Your task to perform on an android device: View the shopping cart on ebay. Search for "acer predator" on ebay, select the first entry, add it to the cart, then select checkout. Image 0: 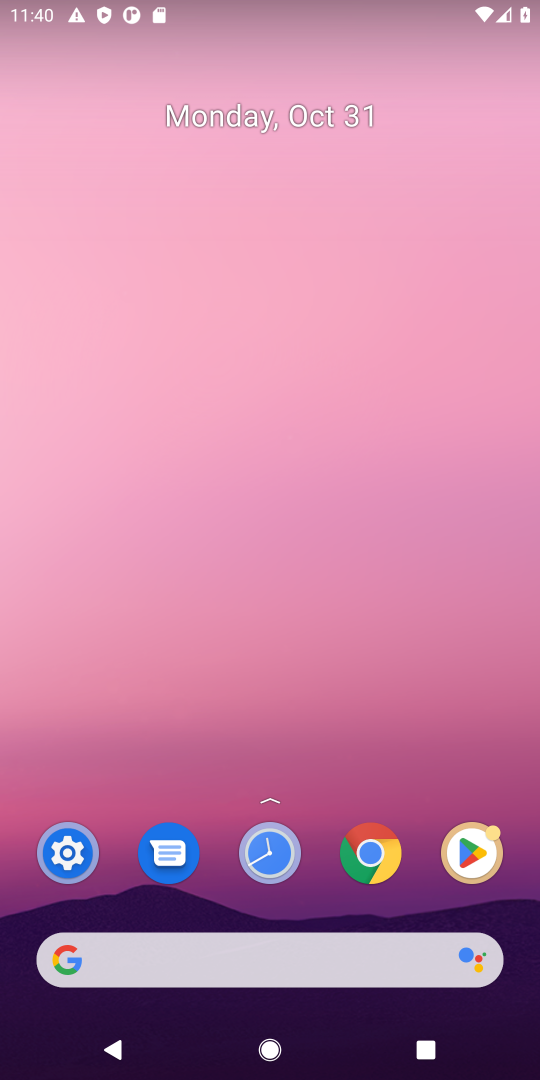
Step 0: click (130, 988)
Your task to perform on an android device: View the shopping cart on ebay. Search for "acer predator" on ebay, select the first entry, add it to the cart, then select checkout. Image 1: 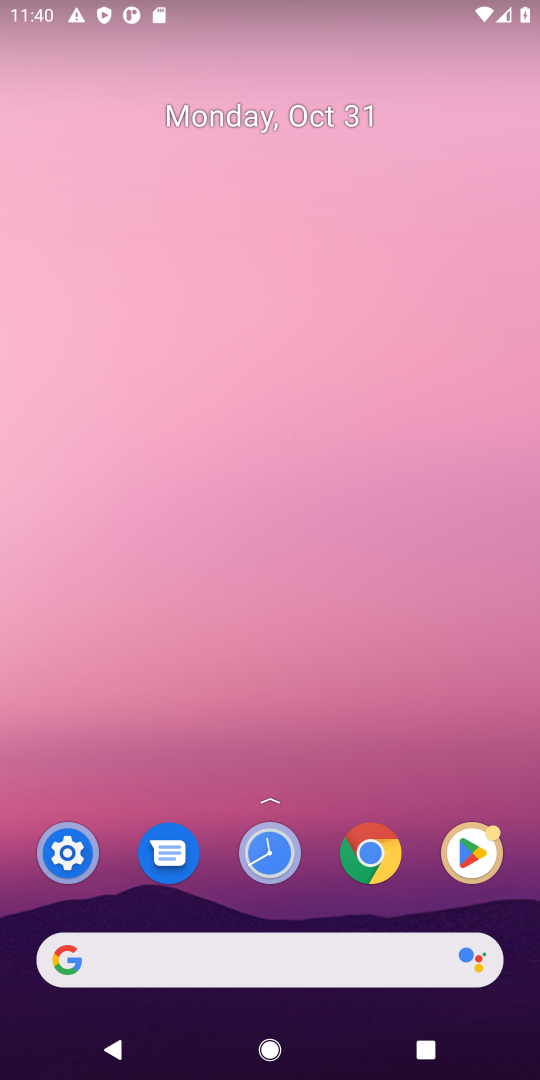
Step 1: click (153, 968)
Your task to perform on an android device: View the shopping cart on ebay. Search for "acer predator" on ebay, select the first entry, add it to the cart, then select checkout. Image 2: 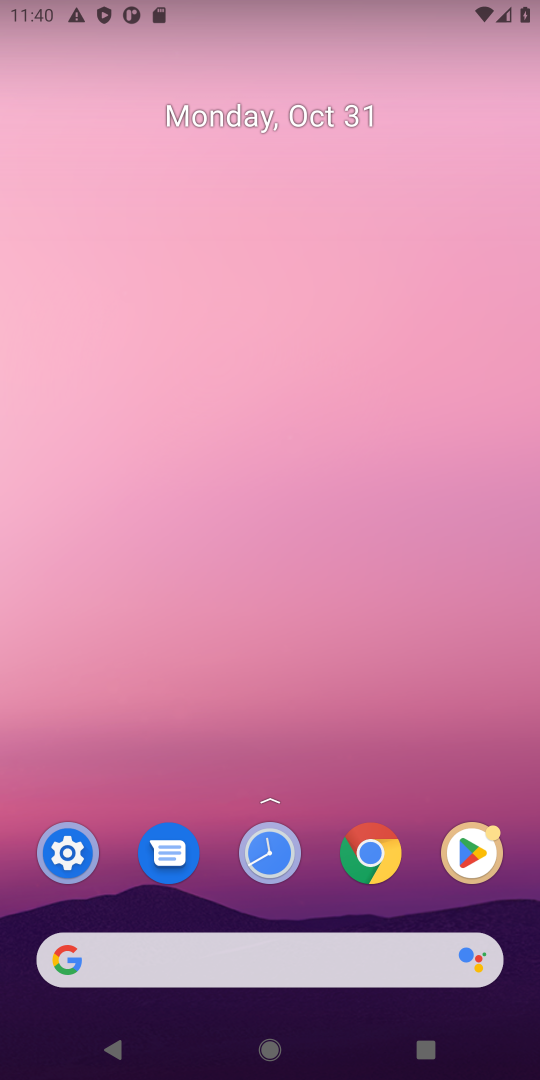
Step 2: click (202, 977)
Your task to perform on an android device: View the shopping cart on ebay. Search for "acer predator" on ebay, select the first entry, add it to the cart, then select checkout. Image 3: 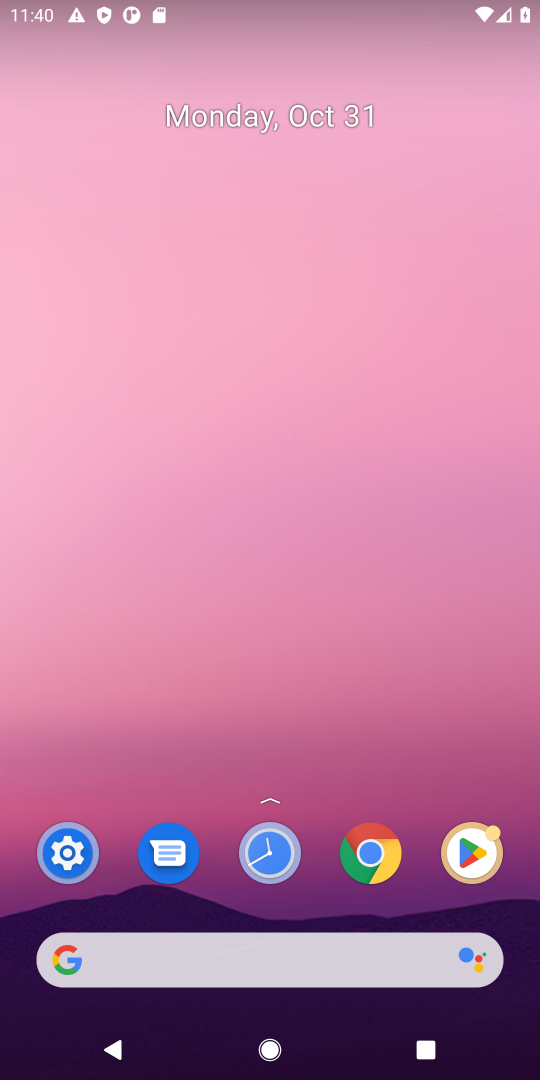
Step 3: click (300, 970)
Your task to perform on an android device: View the shopping cart on ebay. Search for "acer predator" on ebay, select the first entry, add it to the cart, then select checkout. Image 4: 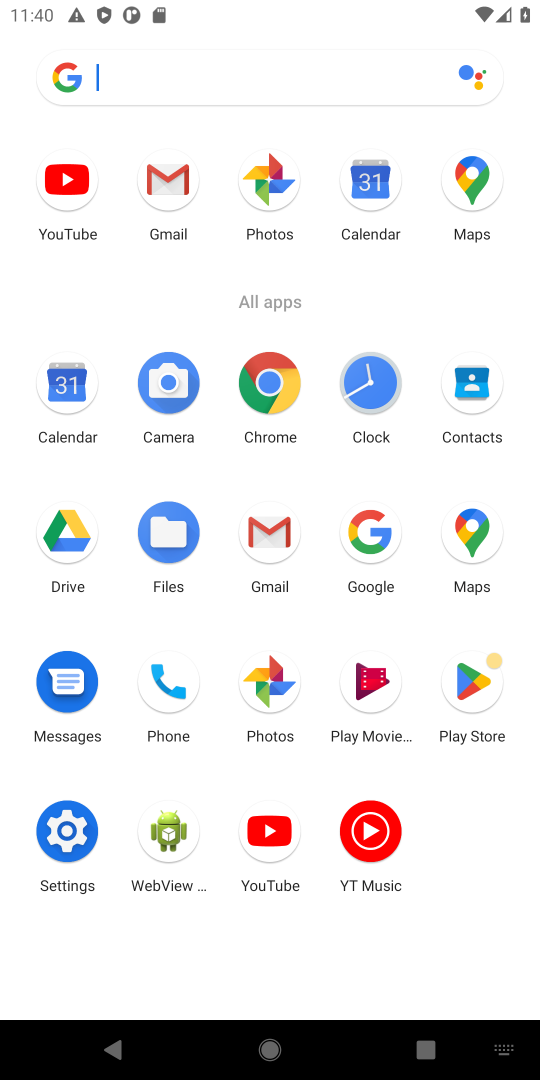
Step 4: press home button
Your task to perform on an android device: View the shopping cart on ebay. Search for "acer predator" on ebay, select the first entry, add it to the cart, then select checkout. Image 5: 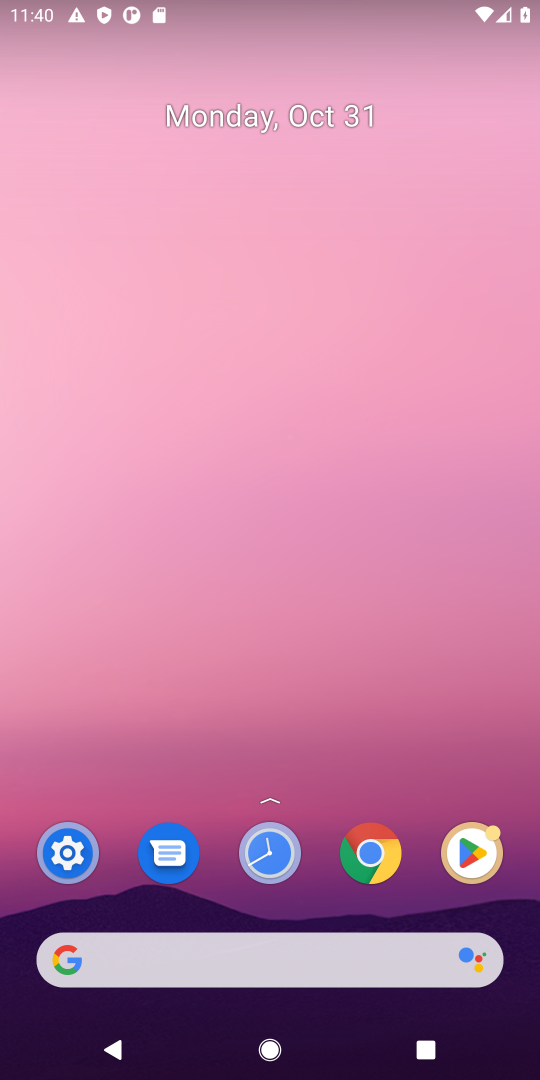
Step 5: click (336, 946)
Your task to perform on an android device: View the shopping cart on ebay. Search for "acer predator" on ebay, select the first entry, add it to the cart, then select checkout. Image 6: 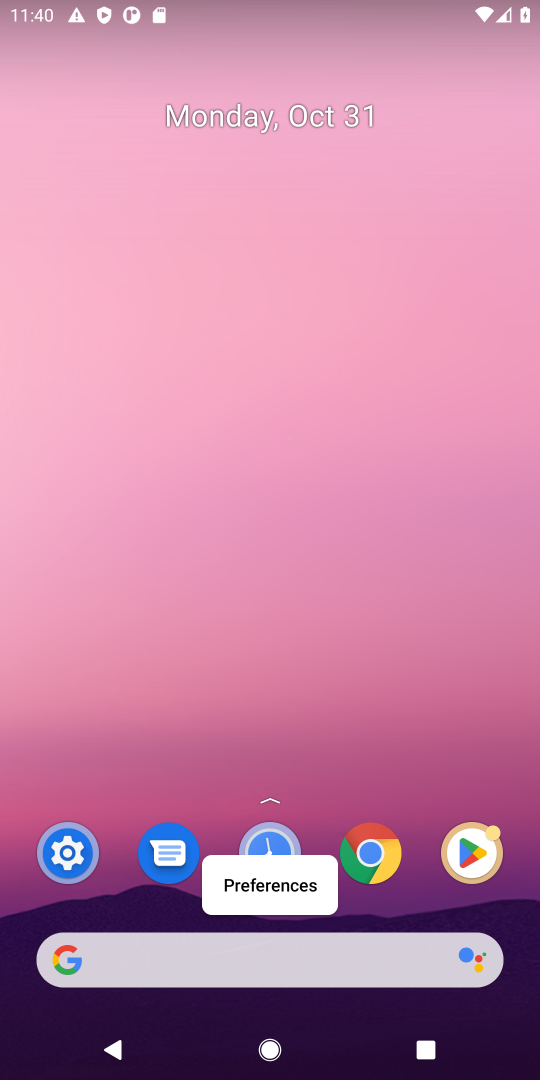
Step 6: click (334, 947)
Your task to perform on an android device: View the shopping cart on ebay. Search for "acer predator" on ebay, select the first entry, add it to the cart, then select checkout. Image 7: 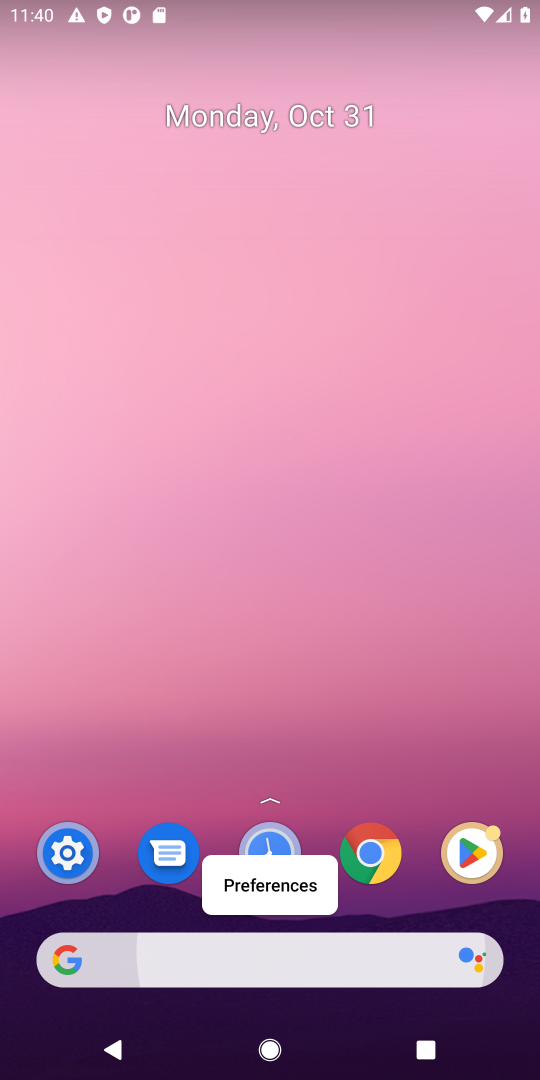
Step 7: click (175, 954)
Your task to perform on an android device: View the shopping cart on ebay. Search for "acer predator" on ebay, select the first entry, add it to the cart, then select checkout. Image 8: 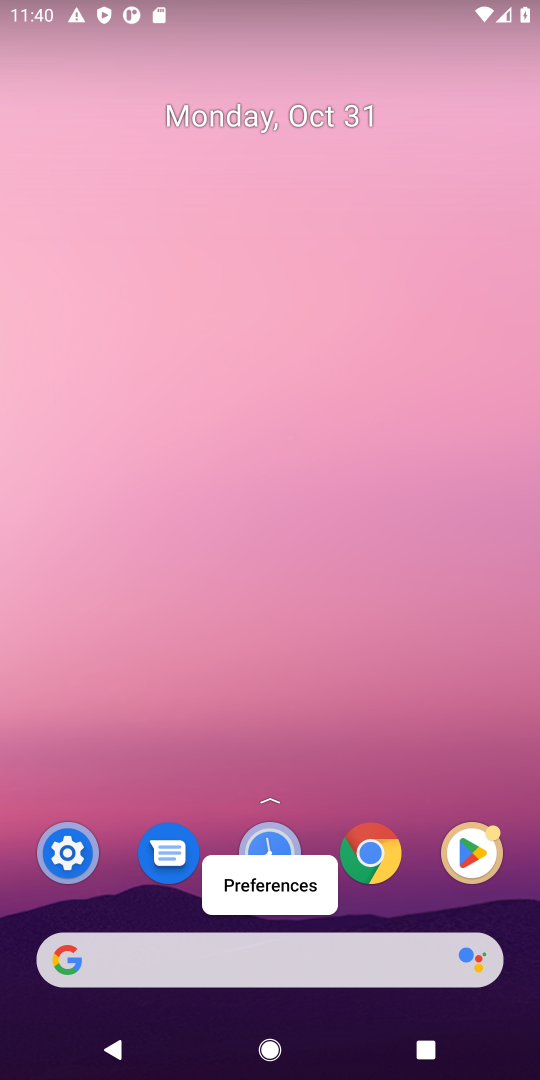
Step 8: click (175, 954)
Your task to perform on an android device: View the shopping cart on ebay. Search for "acer predator" on ebay, select the first entry, add it to the cart, then select checkout. Image 9: 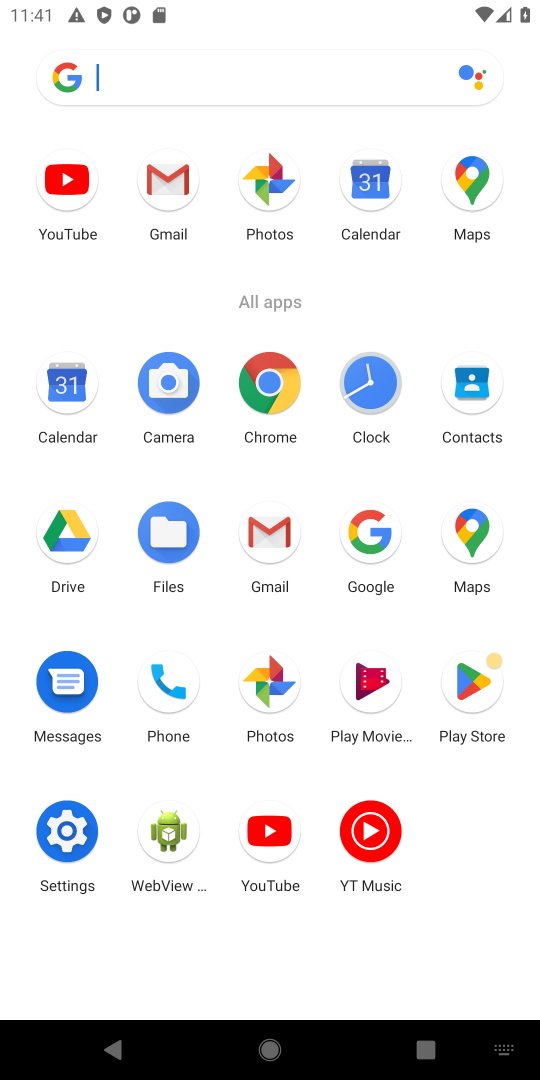
Step 9: type "ebay"
Your task to perform on an android device: View the shopping cart on ebay. Search for "acer predator" on ebay, select the first entry, add it to the cart, then select checkout. Image 10: 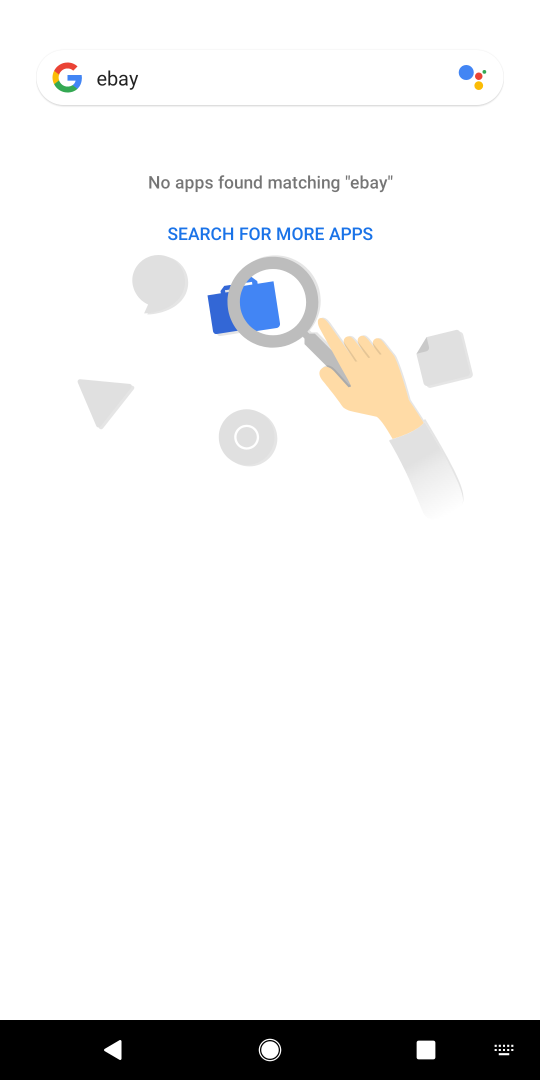
Step 10: type ""
Your task to perform on an android device: View the shopping cart on ebay. Search for "acer predator" on ebay, select the first entry, add it to the cart, then select checkout. Image 11: 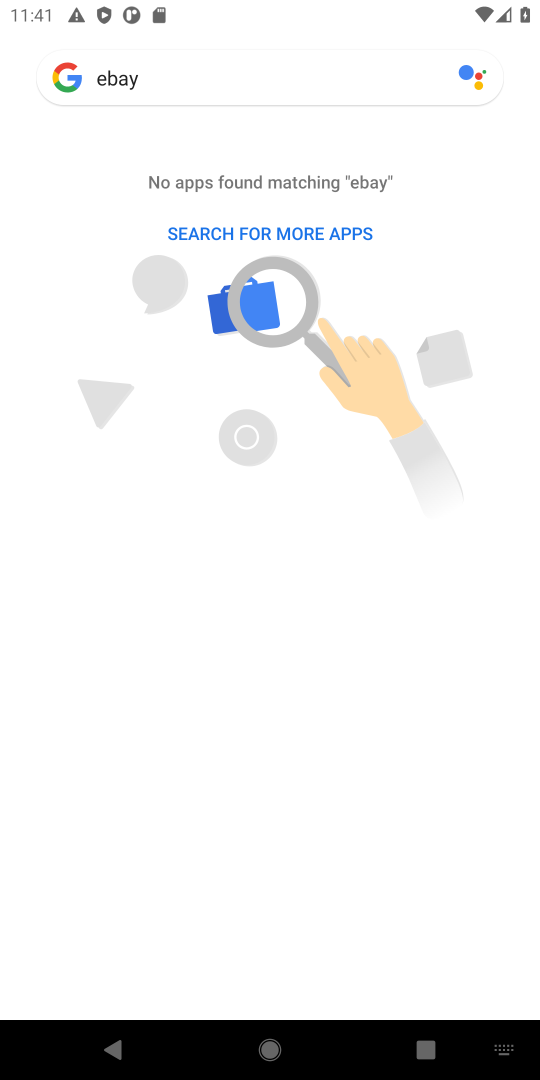
Step 11: type ""
Your task to perform on an android device: View the shopping cart on ebay. Search for "acer predator" on ebay, select the first entry, add it to the cart, then select checkout. Image 12: 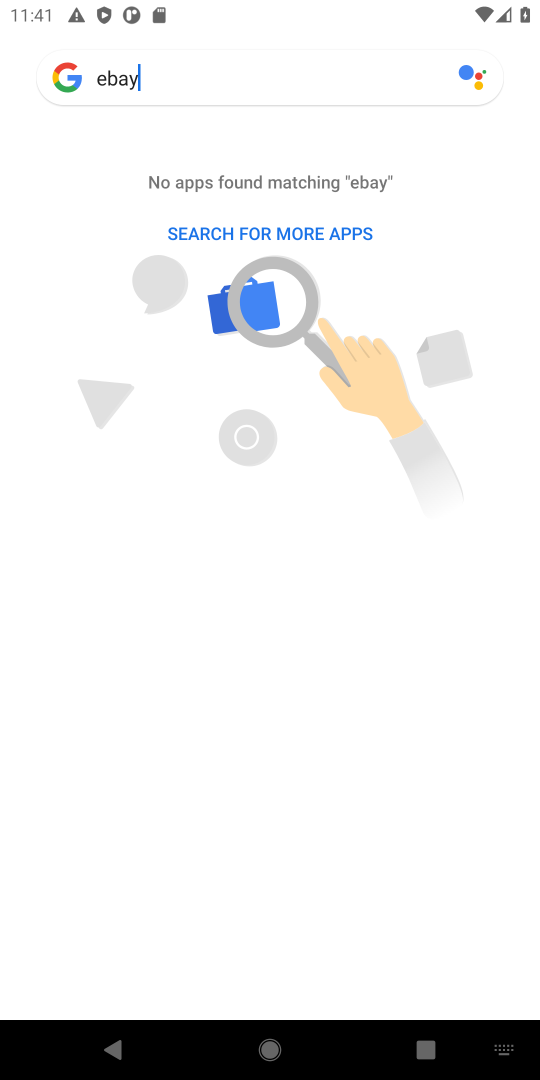
Step 12: press enter
Your task to perform on an android device: View the shopping cart on ebay. Search for "acer predator" on ebay, select the first entry, add it to the cart, then select checkout. Image 13: 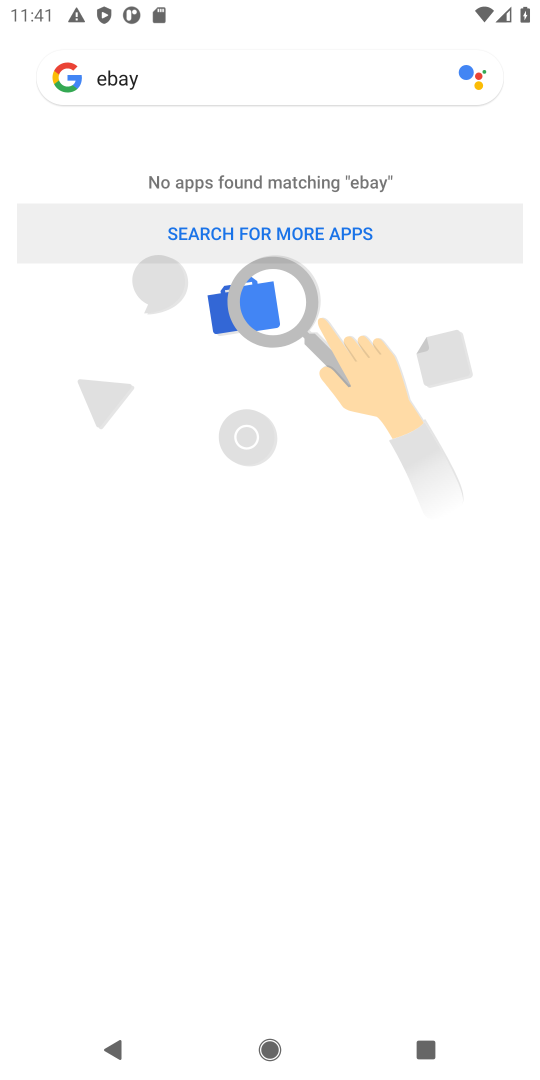
Step 13: press enter
Your task to perform on an android device: View the shopping cart on ebay. Search for "acer predator" on ebay, select the first entry, add it to the cart, then select checkout. Image 14: 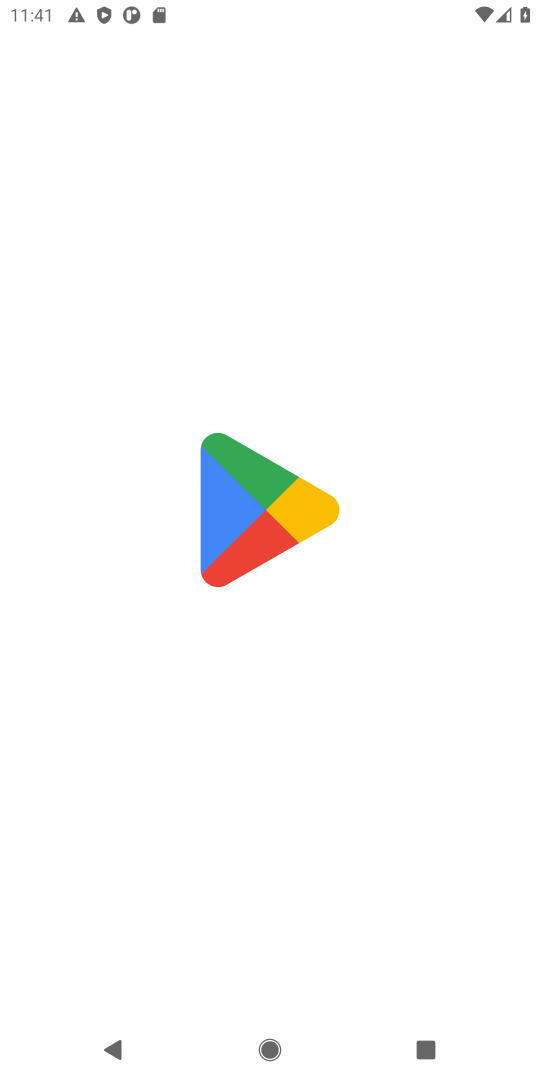
Step 14: press enter
Your task to perform on an android device: View the shopping cart on ebay. Search for "acer predator" on ebay, select the first entry, add it to the cart, then select checkout. Image 15: 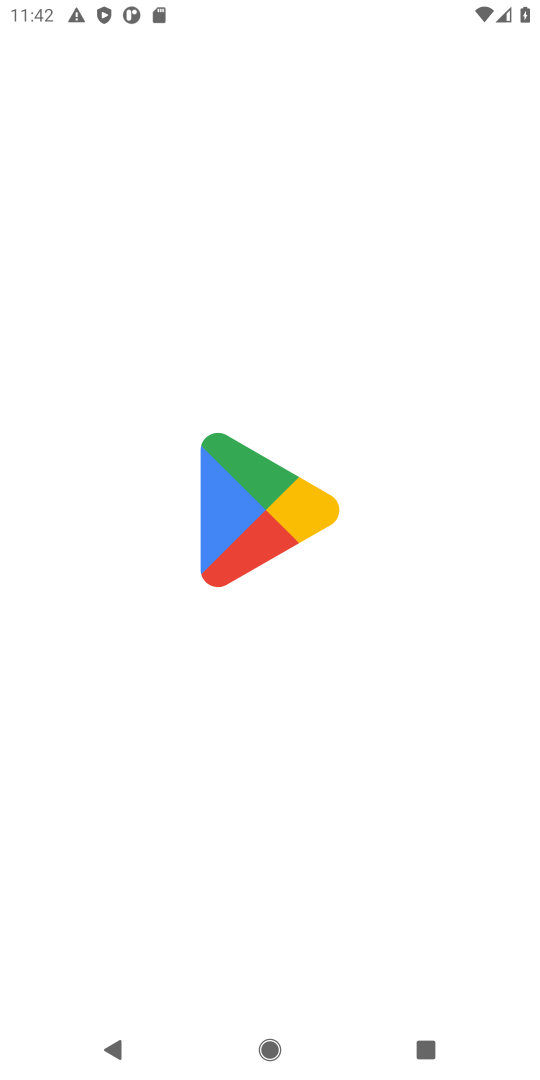
Step 15: type ""
Your task to perform on an android device: View the shopping cart on ebay. Search for "acer predator" on ebay, select the first entry, add it to the cart, then select checkout. Image 16: 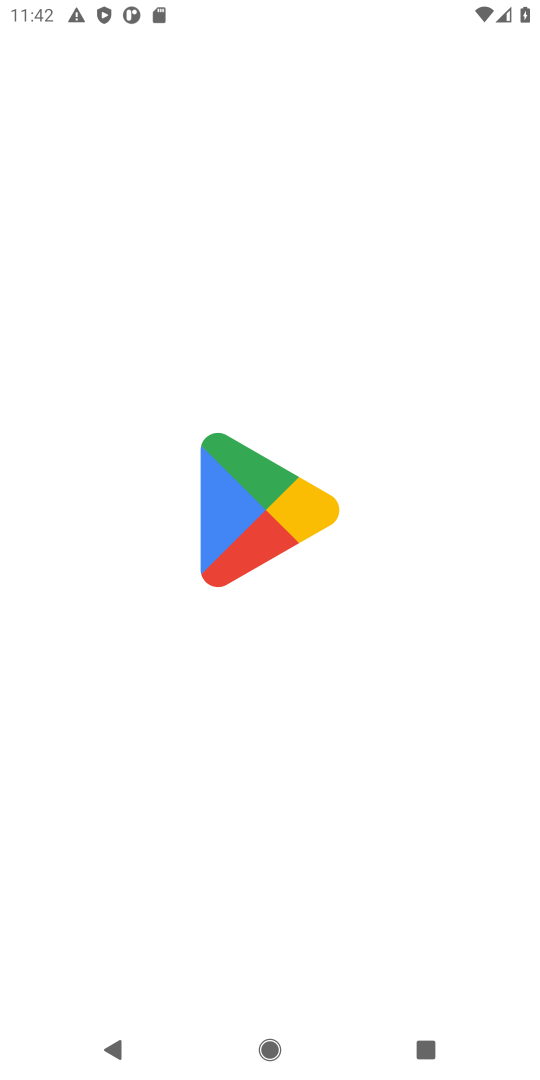
Step 16: type ""
Your task to perform on an android device: View the shopping cart on ebay. Search for "acer predator" on ebay, select the first entry, add it to the cart, then select checkout. Image 17: 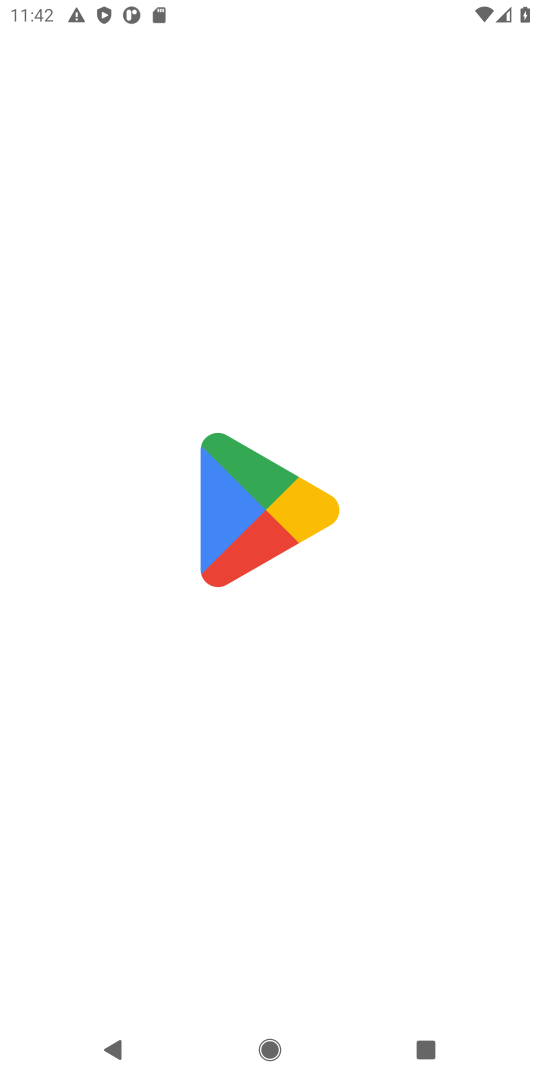
Step 17: type ""
Your task to perform on an android device: View the shopping cart on ebay. Search for "acer predator" on ebay, select the first entry, add it to the cart, then select checkout. Image 18: 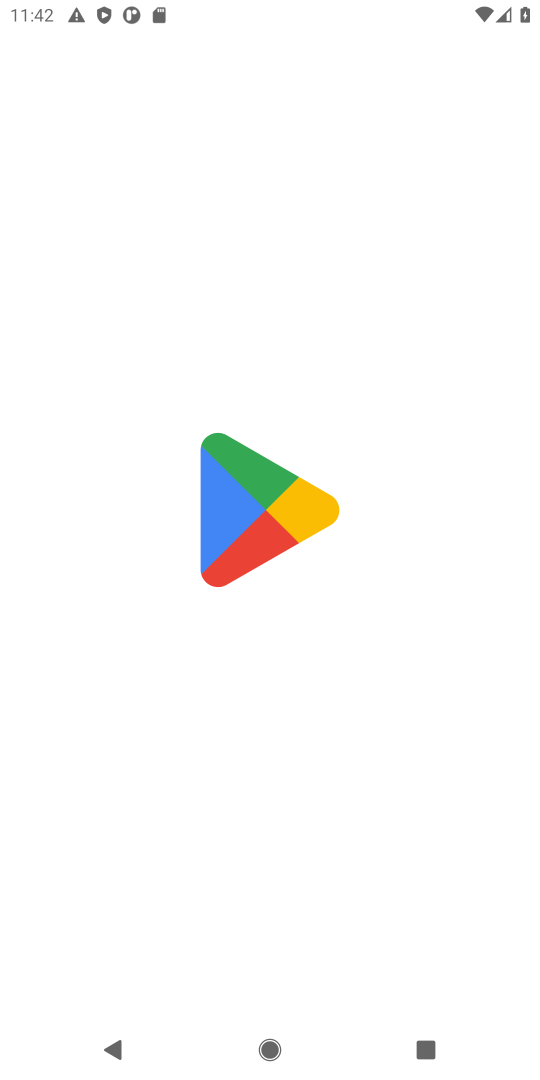
Step 18: press back button
Your task to perform on an android device: View the shopping cart on ebay. Search for "acer predator" on ebay, select the first entry, add it to the cart, then select checkout. Image 19: 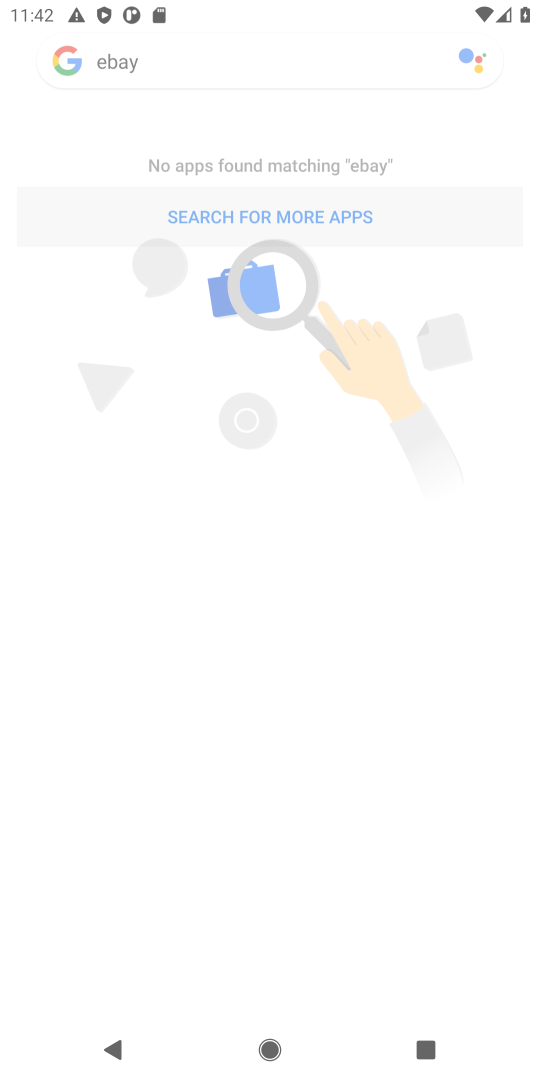
Step 19: press back button
Your task to perform on an android device: View the shopping cart on ebay. Search for "acer predator" on ebay, select the first entry, add it to the cart, then select checkout. Image 20: 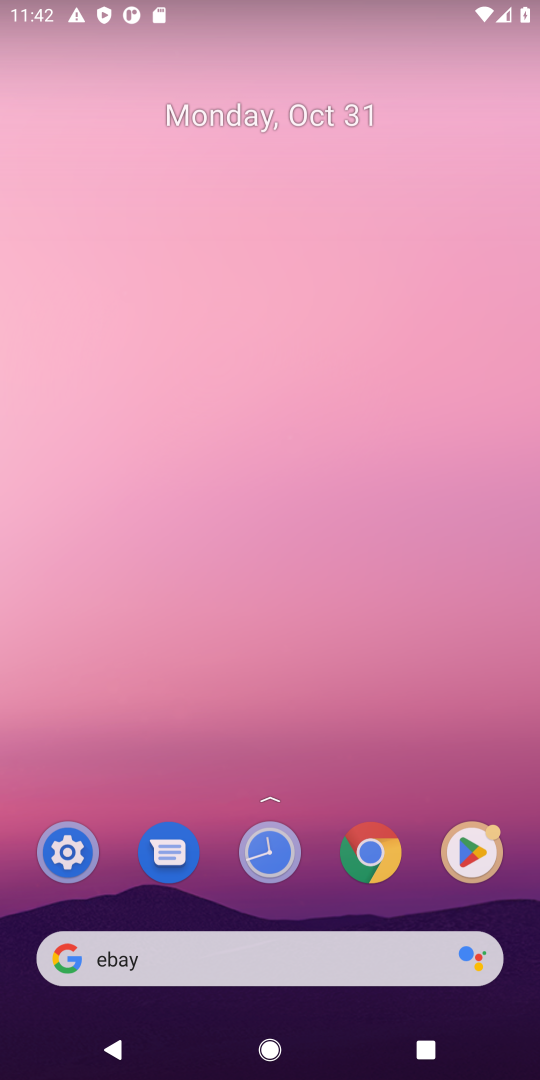
Step 20: press back button
Your task to perform on an android device: View the shopping cart on ebay. Search for "acer predator" on ebay, select the first entry, add it to the cart, then select checkout. Image 21: 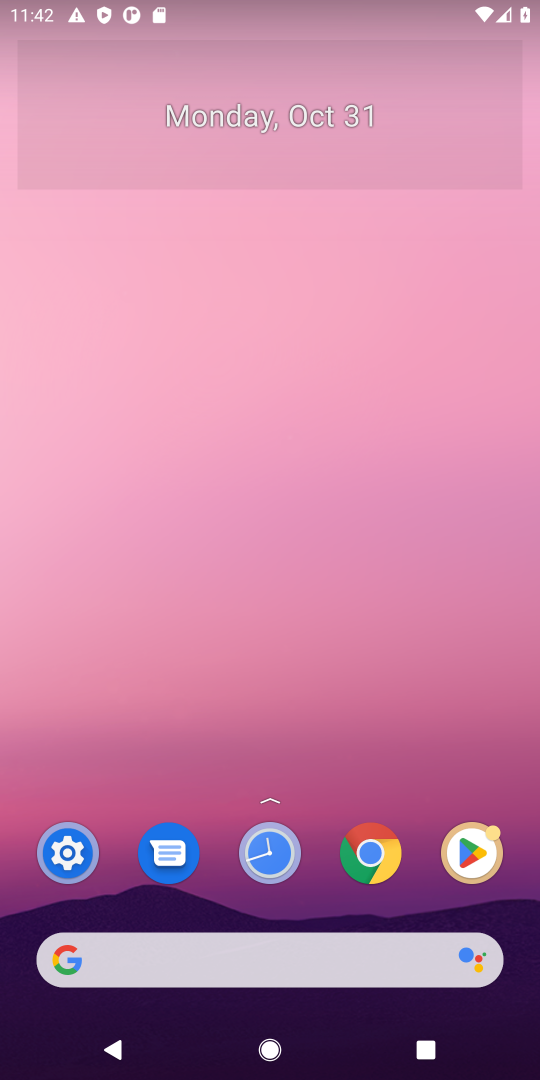
Step 21: click (401, 966)
Your task to perform on an android device: View the shopping cart on ebay. Search for "acer predator" on ebay, select the first entry, add it to the cart, then select checkout. Image 22: 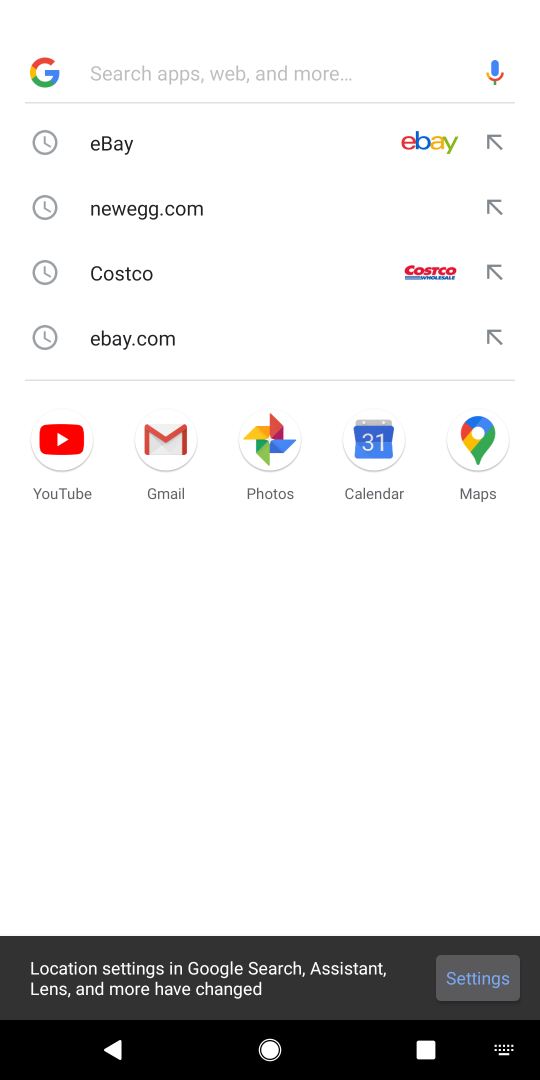
Step 22: click (360, 932)
Your task to perform on an android device: View the shopping cart on ebay. Search for "acer predator" on ebay, select the first entry, add it to the cart, then select checkout. Image 23: 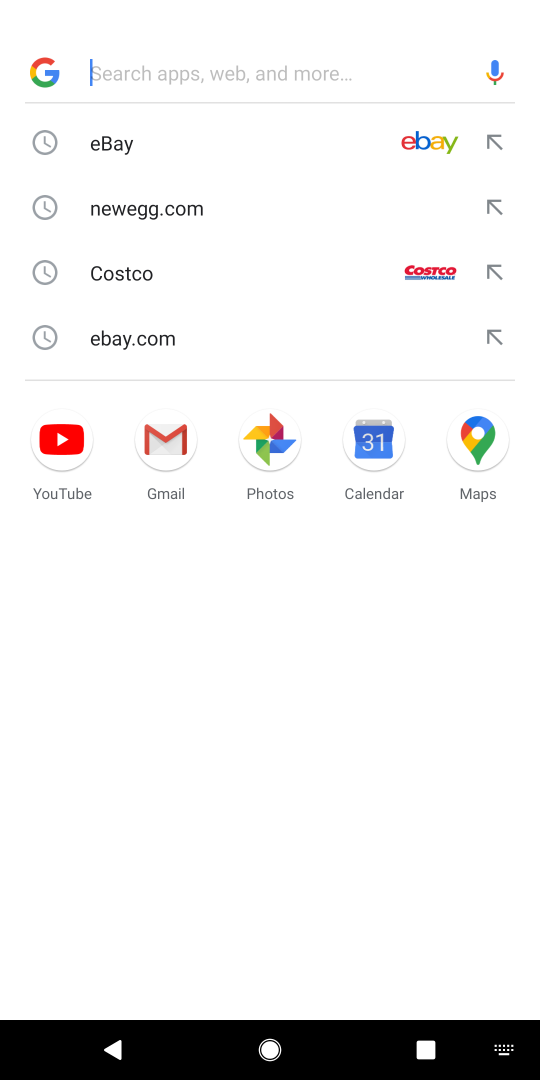
Step 23: click (141, 156)
Your task to perform on an android device: View the shopping cart on ebay. Search for "acer predator" on ebay, select the first entry, add it to the cart, then select checkout. Image 24: 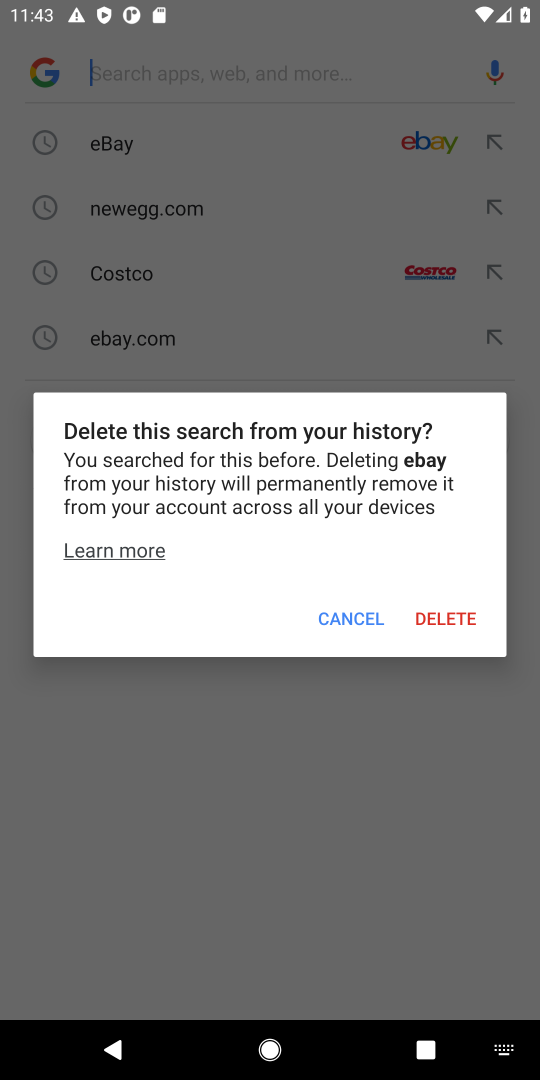
Step 24: click (136, 156)
Your task to perform on an android device: View the shopping cart on ebay. Search for "acer predator" on ebay, select the first entry, add it to the cart, then select checkout. Image 25: 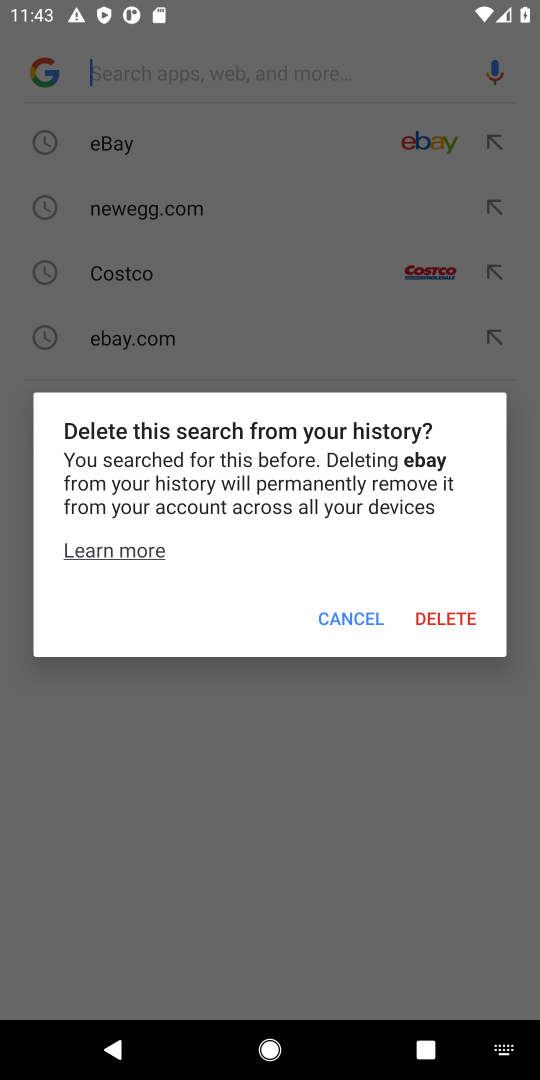
Step 25: click (123, 144)
Your task to perform on an android device: View the shopping cart on ebay. Search for "acer predator" on ebay, select the first entry, add it to the cart, then select checkout. Image 26: 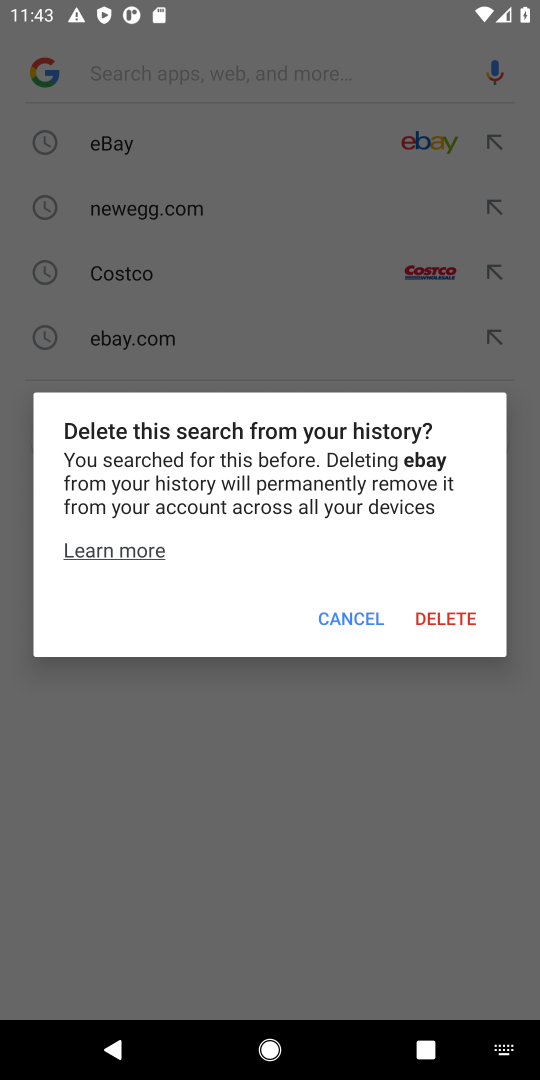
Step 26: click (121, 144)
Your task to perform on an android device: View the shopping cart on ebay. Search for "acer predator" on ebay, select the first entry, add it to the cart, then select checkout. Image 27: 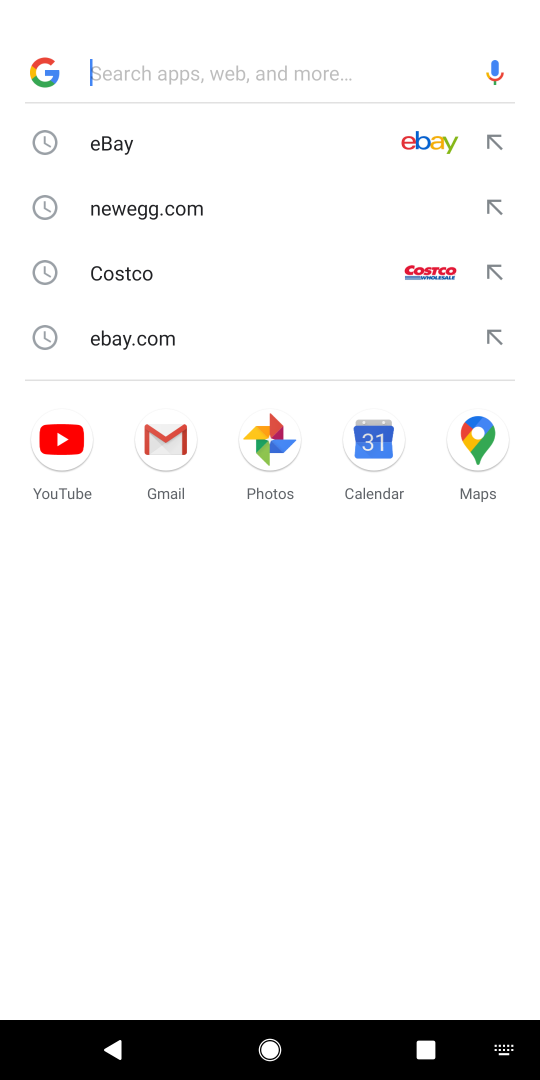
Step 27: type " ebay"
Your task to perform on an android device: View the shopping cart on ebay. Search for "acer predator" on ebay, select the first entry, add it to the cart, then select checkout. Image 28: 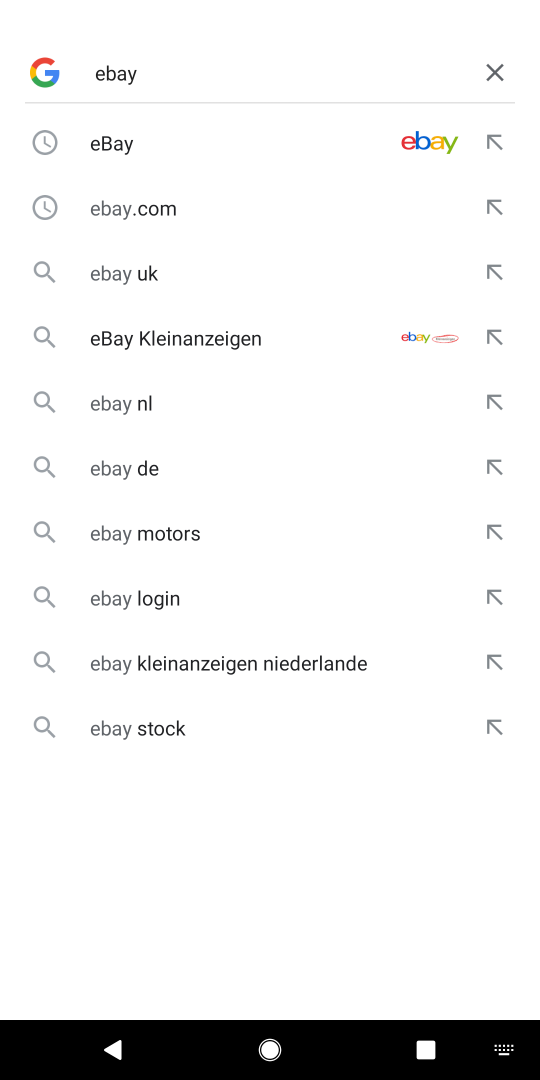
Step 28: type ""
Your task to perform on an android device: View the shopping cart on ebay. Search for "acer predator" on ebay, select the first entry, add it to the cart, then select checkout. Image 29: 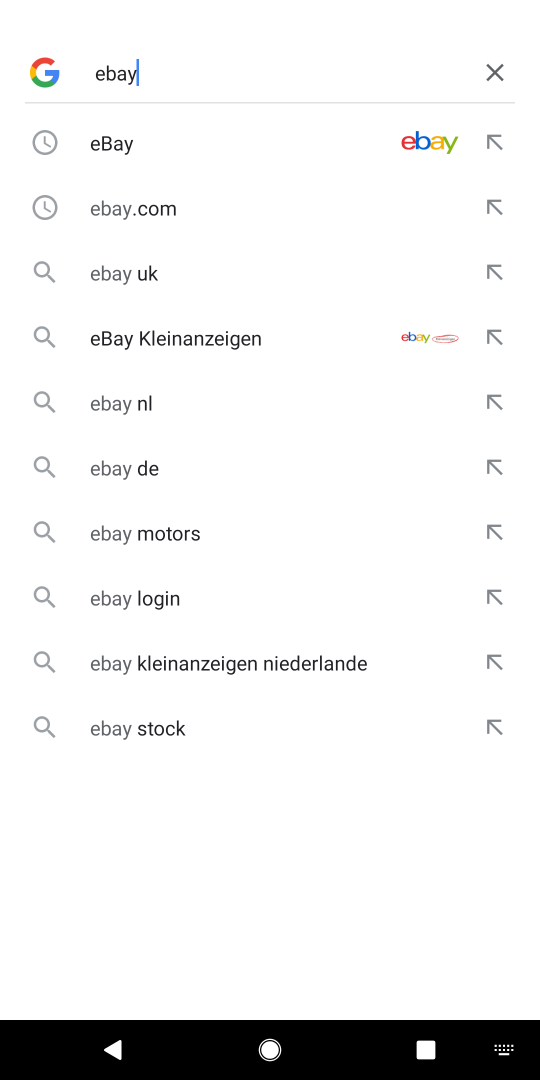
Step 29: type ""
Your task to perform on an android device: View the shopping cart on ebay. Search for "acer predator" on ebay, select the first entry, add it to the cart, then select checkout. Image 30: 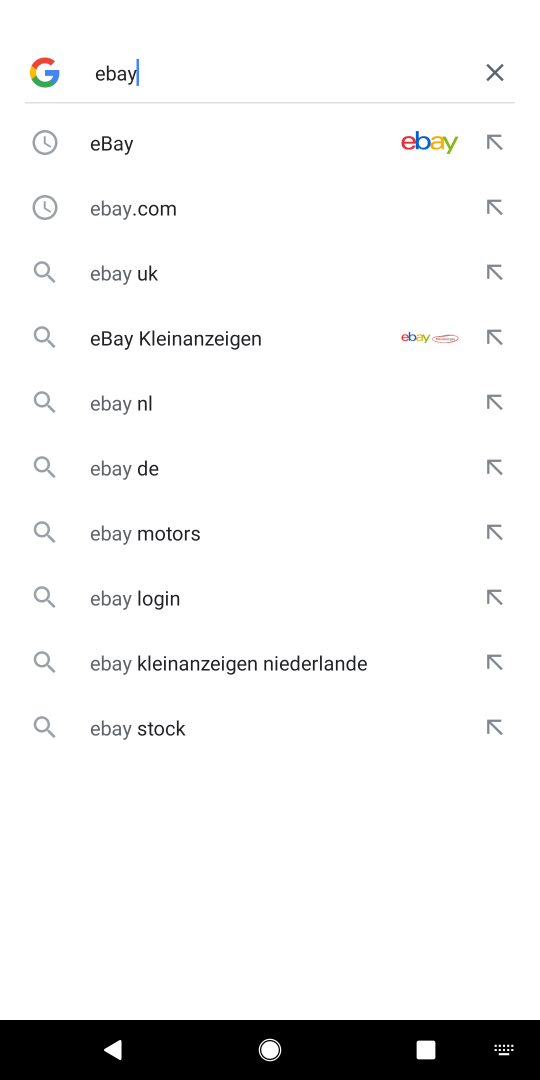
Step 30: click (147, 90)
Your task to perform on an android device: View the shopping cart on ebay. Search for "acer predator" on ebay, select the first entry, add it to the cart, then select checkout. Image 31: 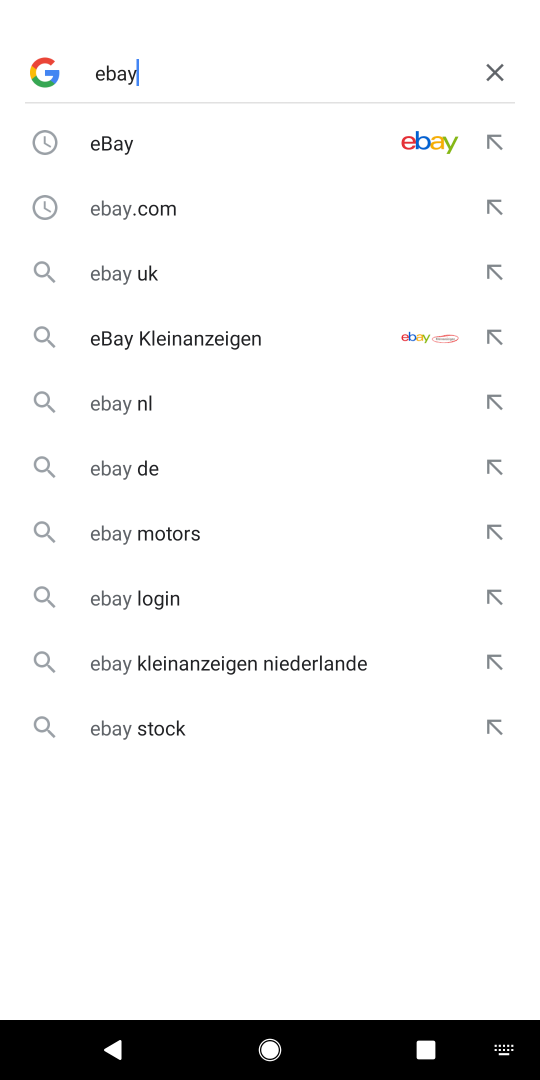
Step 31: type ""
Your task to perform on an android device: View the shopping cart on ebay. Search for "acer predator" on ebay, select the first entry, add it to the cart, then select checkout. Image 32: 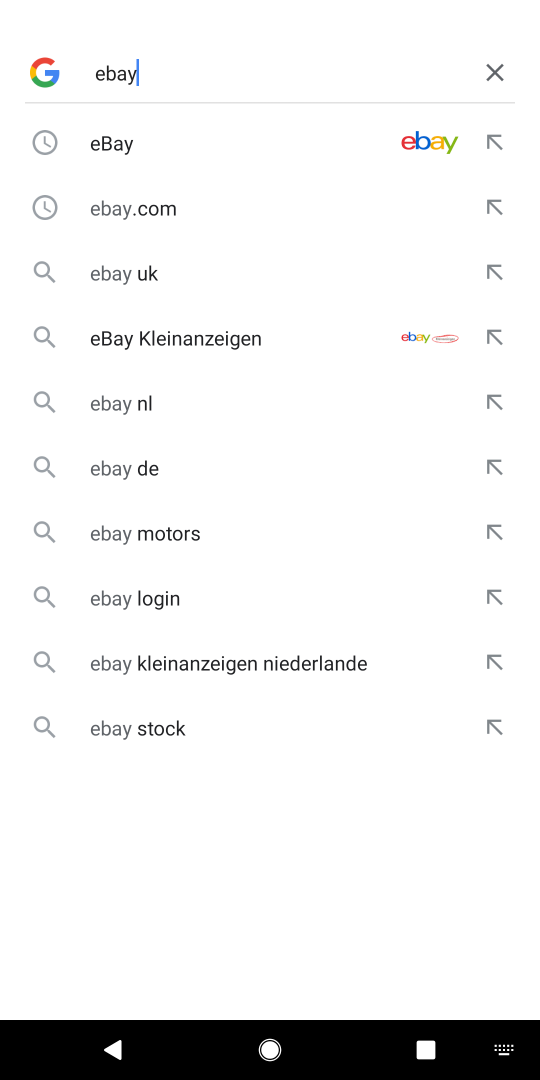
Step 32: press enter
Your task to perform on an android device: View the shopping cart on ebay. Search for "acer predator" on ebay, select the first entry, add it to the cart, then select checkout. Image 33: 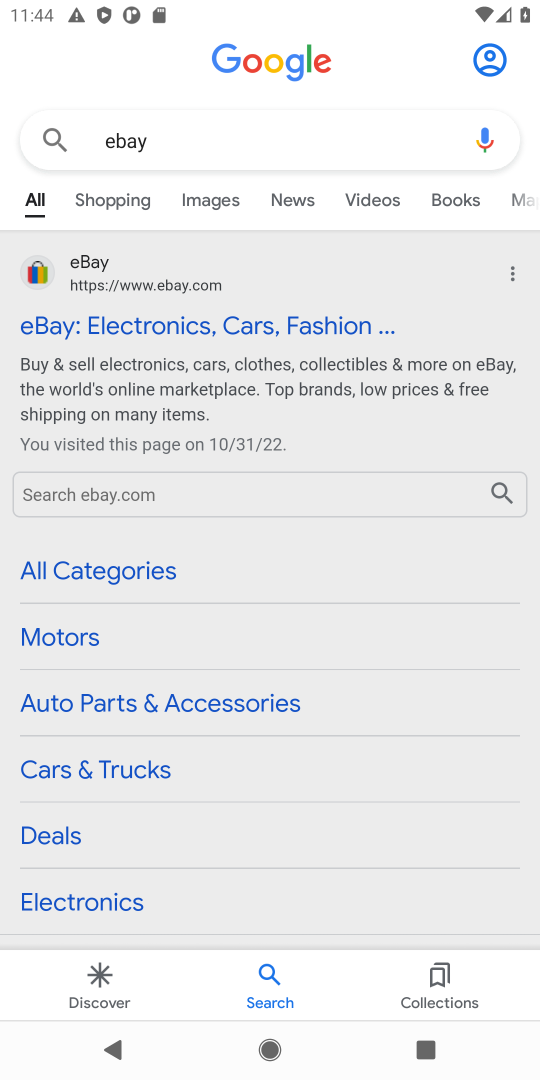
Step 33: click (152, 299)
Your task to perform on an android device: View the shopping cart on ebay. Search for "acer predator" on ebay, select the first entry, add it to the cart, then select checkout. Image 34: 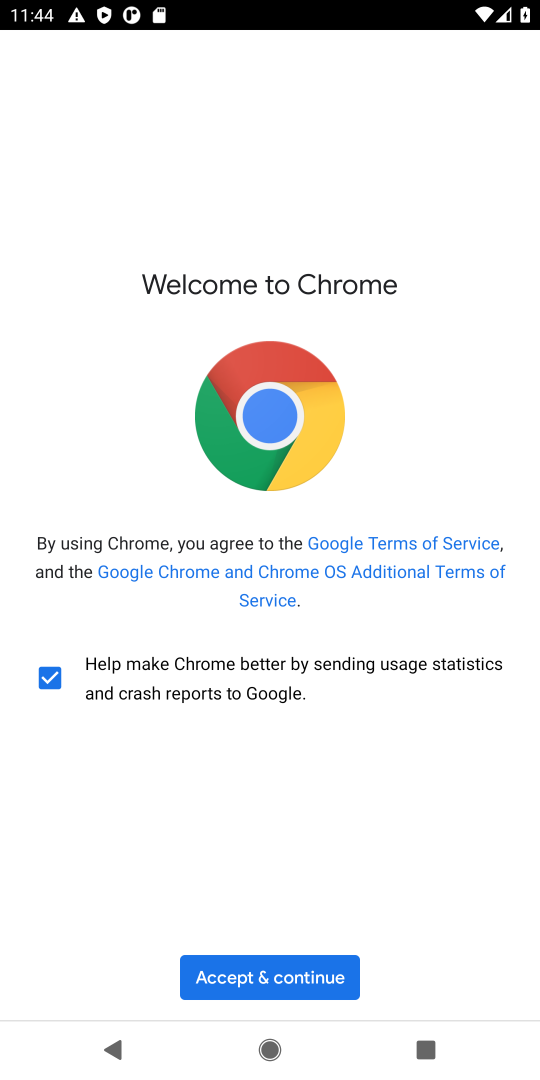
Step 34: task complete